Your task to perform on an android device: change notification settings in the gmail app Image 0: 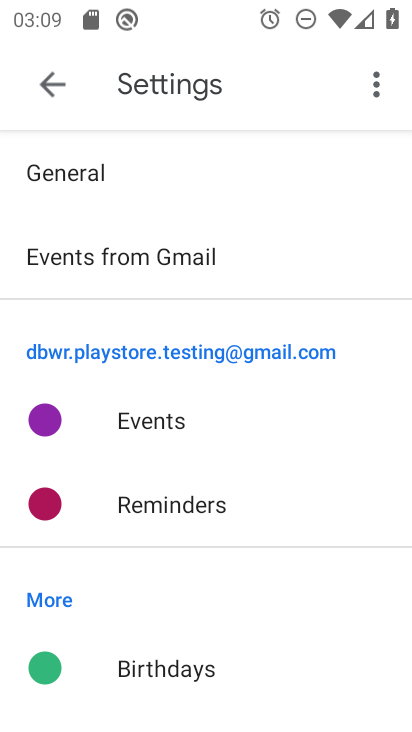
Step 0: press home button
Your task to perform on an android device: change notification settings in the gmail app Image 1: 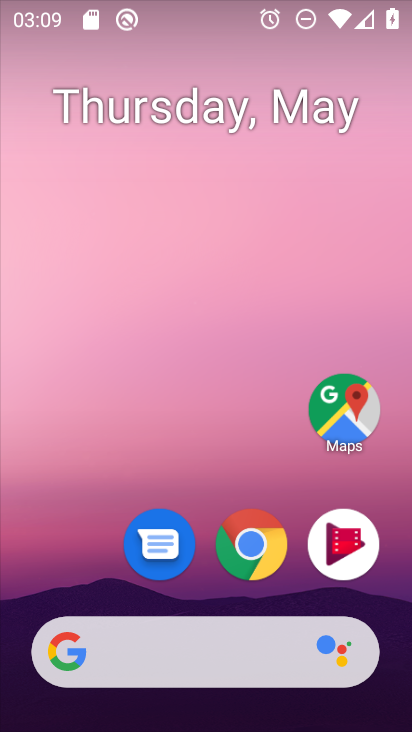
Step 1: drag from (77, 580) to (71, 140)
Your task to perform on an android device: change notification settings in the gmail app Image 2: 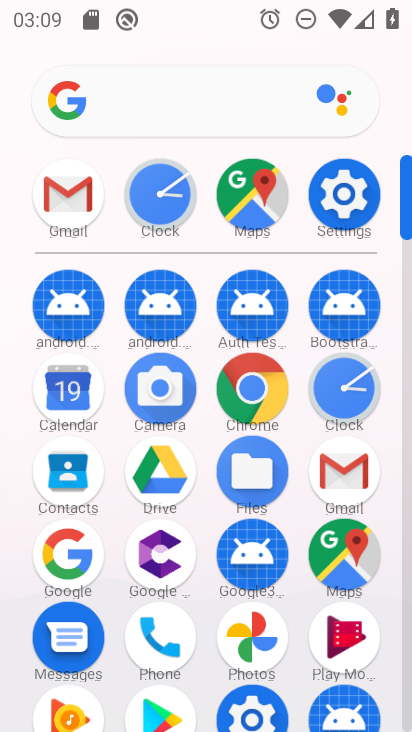
Step 2: click (349, 478)
Your task to perform on an android device: change notification settings in the gmail app Image 3: 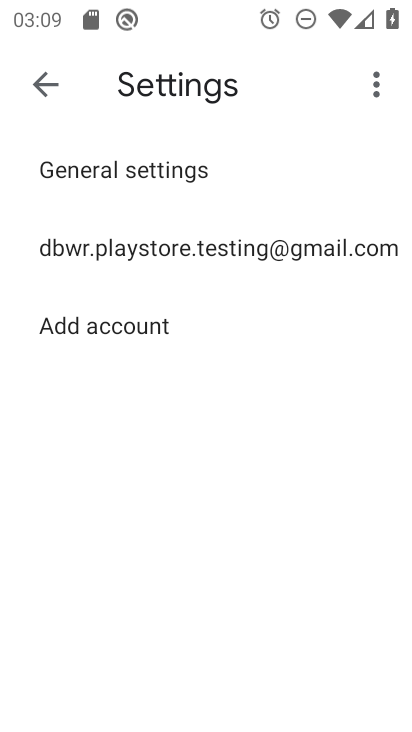
Step 3: click (174, 267)
Your task to perform on an android device: change notification settings in the gmail app Image 4: 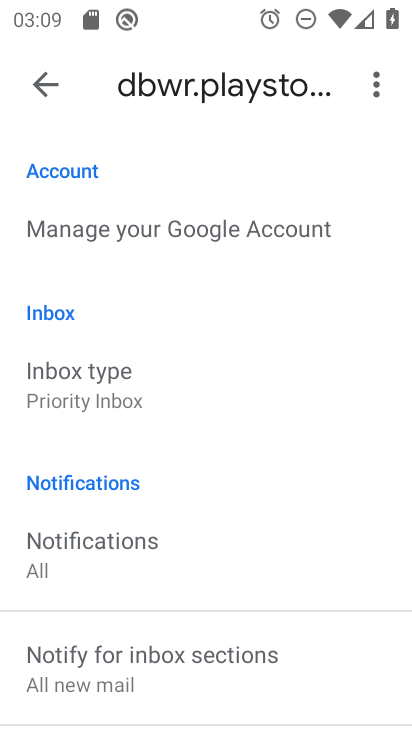
Step 4: drag from (265, 545) to (307, 286)
Your task to perform on an android device: change notification settings in the gmail app Image 5: 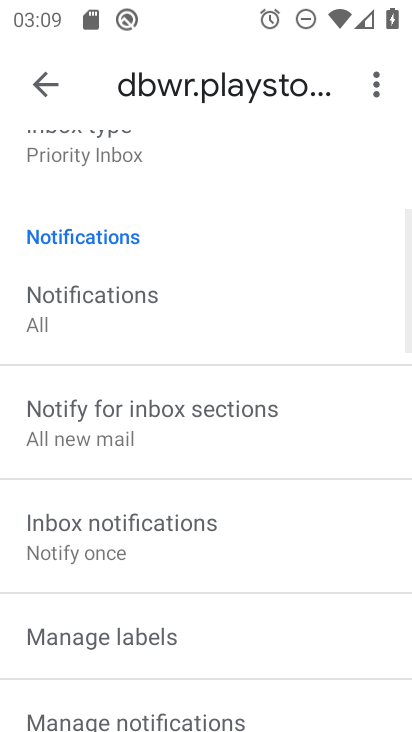
Step 5: drag from (327, 547) to (327, 374)
Your task to perform on an android device: change notification settings in the gmail app Image 6: 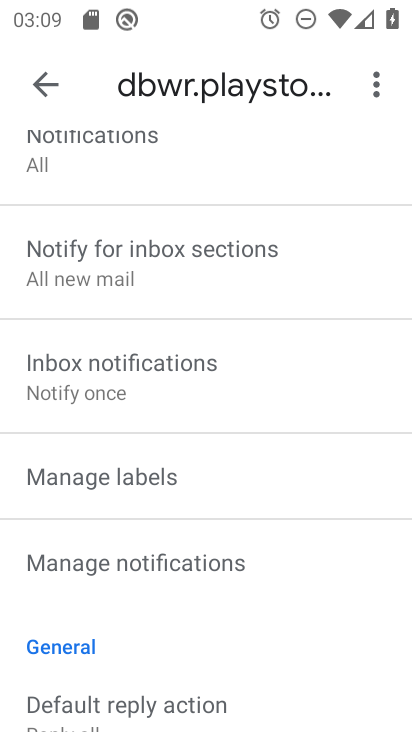
Step 6: drag from (335, 582) to (331, 402)
Your task to perform on an android device: change notification settings in the gmail app Image 7: 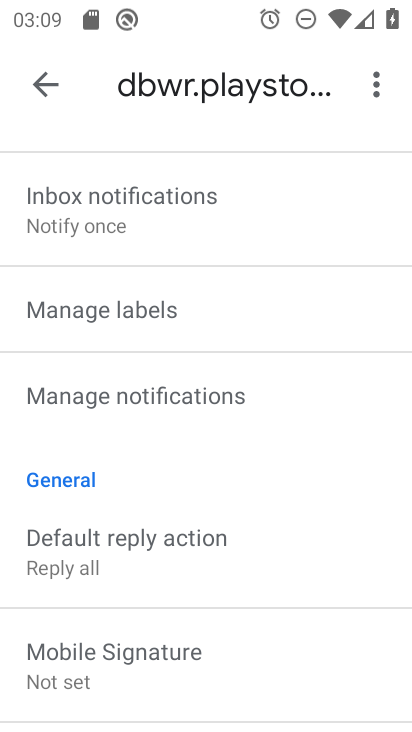
Step 7: drag from (331, 582) to (331, 457)
Your task to perform on an android device: change notification settings in the gmail app Image 8: 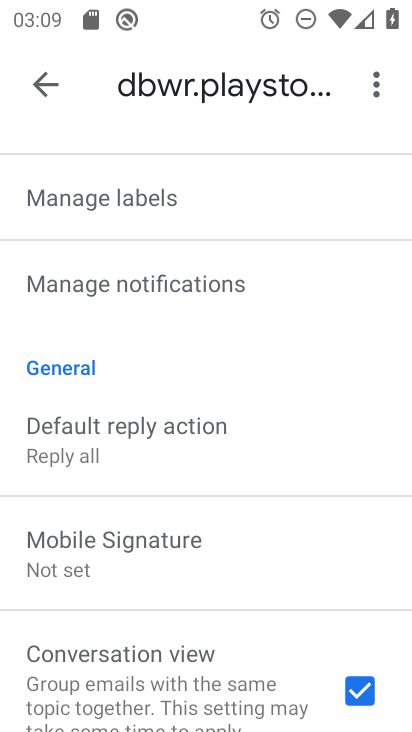
Step 8: drag from (308, 633) to (301, 469)
Your task to perform on an android device: change notification settings in the gmail app Image 9: 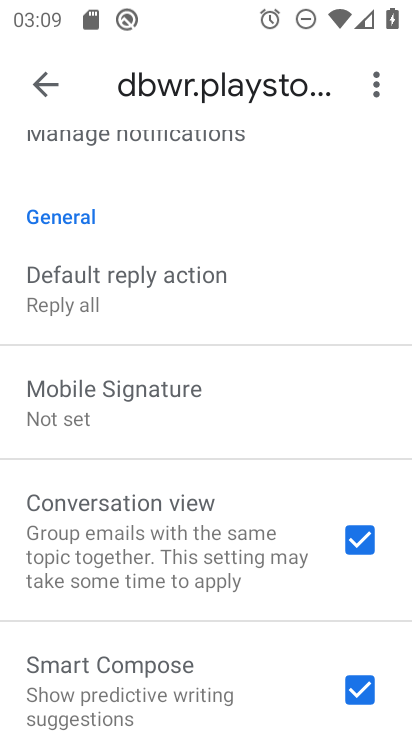
Step 9: drag from (281, 651) to (281, 458)
Your task to perform on an android device: change notification settings in the gmail app Image 10: 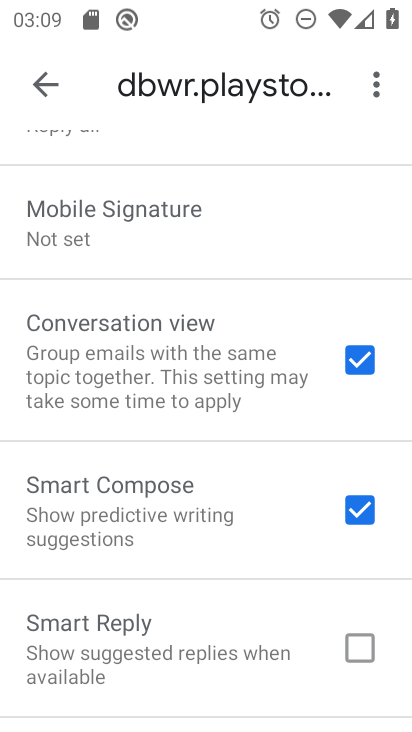
Step 10: drag from (293, 313) to (290, 458)
Your task to perform on an android device: change notification settings in the gmail app Image 11: 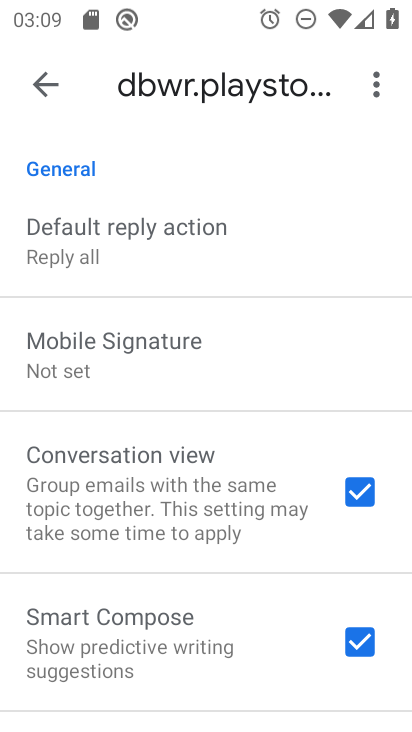
Step 11: drag from (277, 329) to (262, 448)
Your task to perform on an android device: change notification settings in the gmail app Image 12: 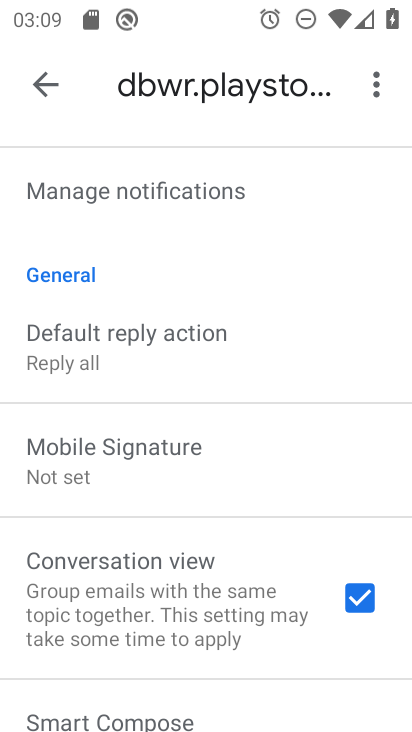
Step 12: drag from (274, 282) to (260, 461)
Your task to perform on an android device: change notification settings in the gmail app Image 13: 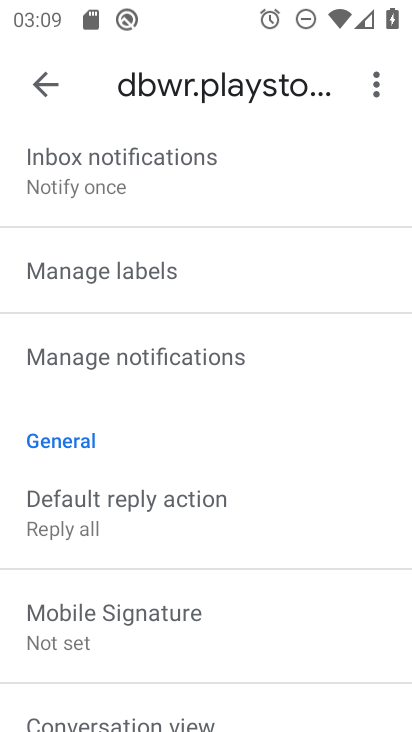
Step 13: click (219, 354)
Your task to perform on an android device: change notification settings in the gmail app Image 14: 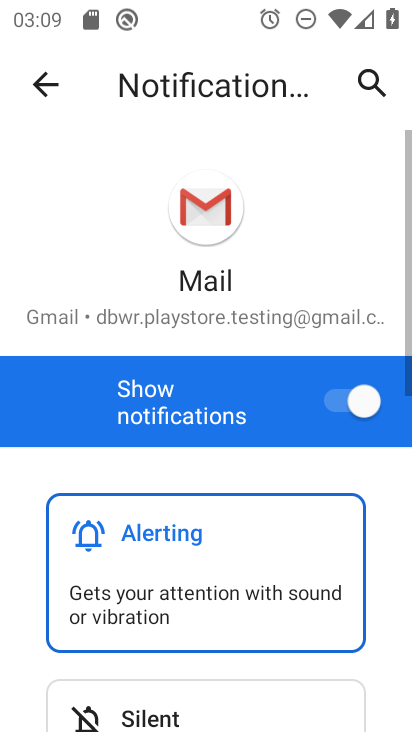
Step 14: click (358, 387)
Your task to perform on an android device: change notification settings in the gmail app Image 15: 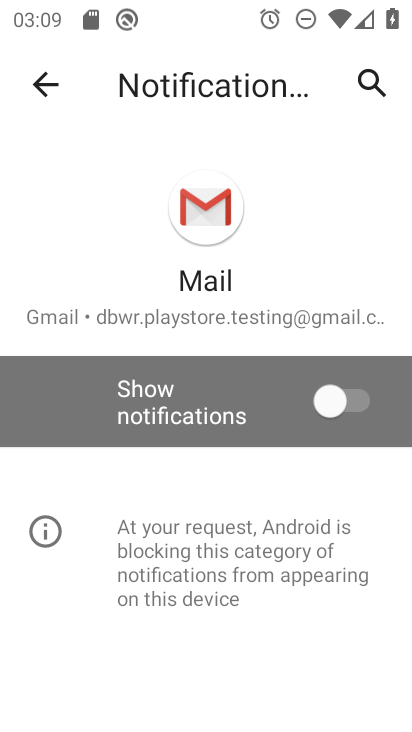
Step 15: task complete